Your task to perform on an android device: Open settings on Google Maps Image 0: 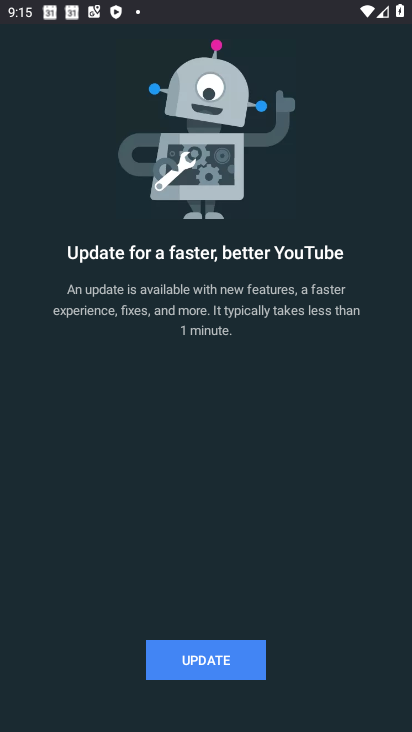
Step 0: press home button
Your task to perform on an android device: Open settings on Google Maps Image 1: 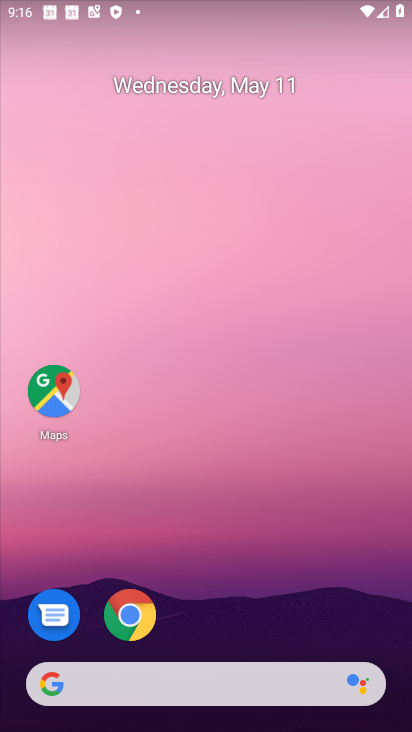
Step 1: click (56, 387)
Your task to perform on an android device: Open settings on Google Maps Image 2: 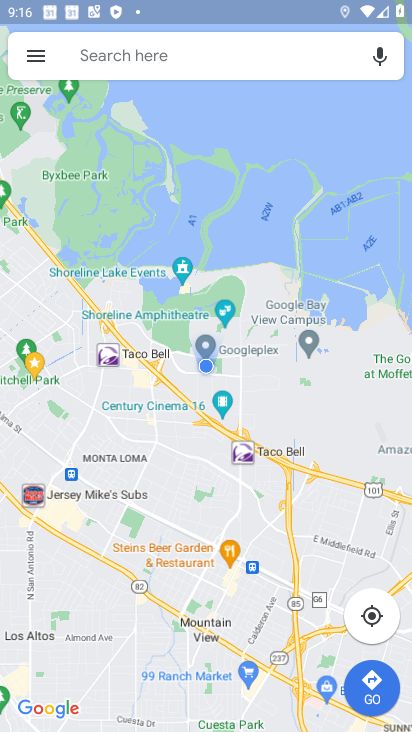
Step 2: click (33, 54)
Your task to perform on an android device: Open settings on Google Maps Image 3: 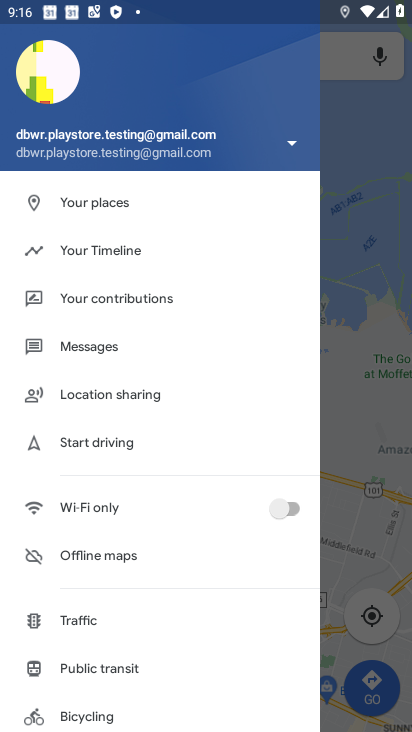
Step 3: drag from (53, 723) to (161, 182)
Your task to perform on an android device: Open settings on Google Maps Image 4: 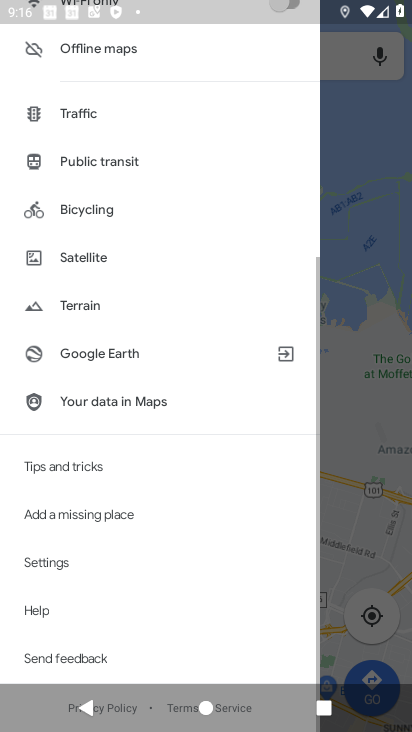
Step 4: click (69, 569)
Your task to perform on an android device: Open settings on Google Maps Image 5: 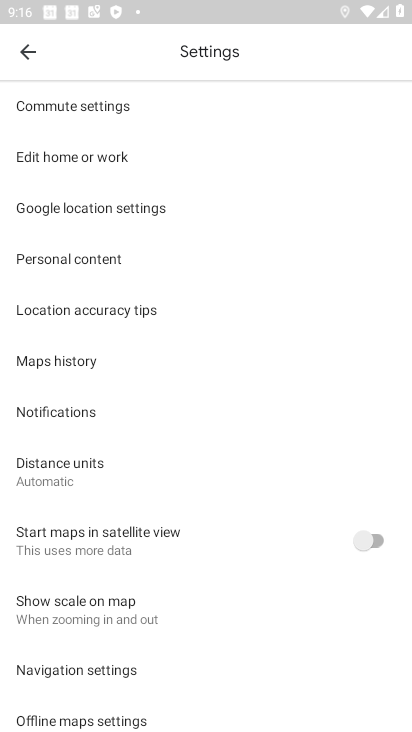
Step 5: task complete